Your task to perform on an android device: turn off wifi Image 0: 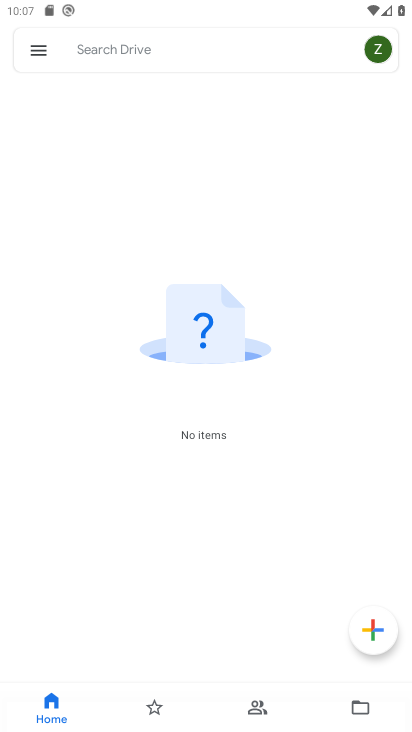
Step 0: press home button
Your task to perform on an android device: turn off wifi Image 1: 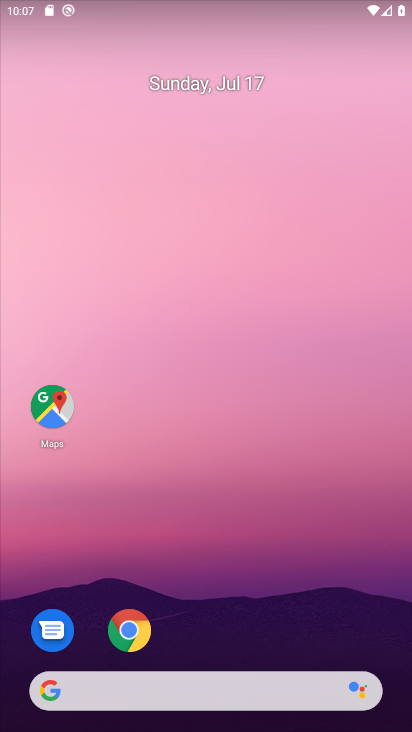
Step 1: drag from (187, 658) to (223, 5)
Your task to perform on an android device: turn off wifi Image 2: 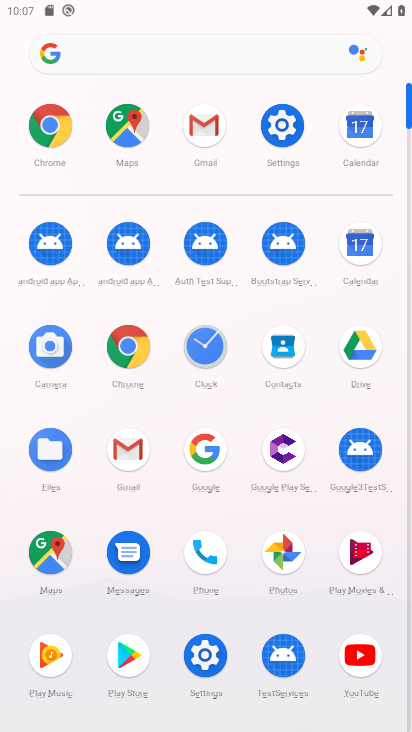
Step 2: click (280, 122)
Your task to perform on an android device: turn off wifi Image 3: 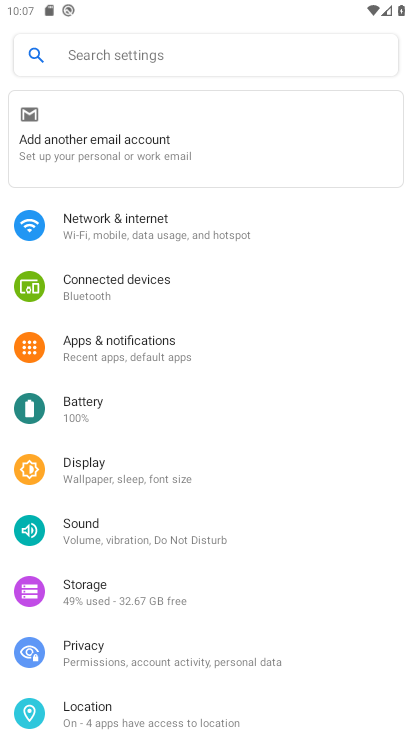
Step 3: click (127, 228)
Your task to perform on an android device: turn off wifi Image 4: 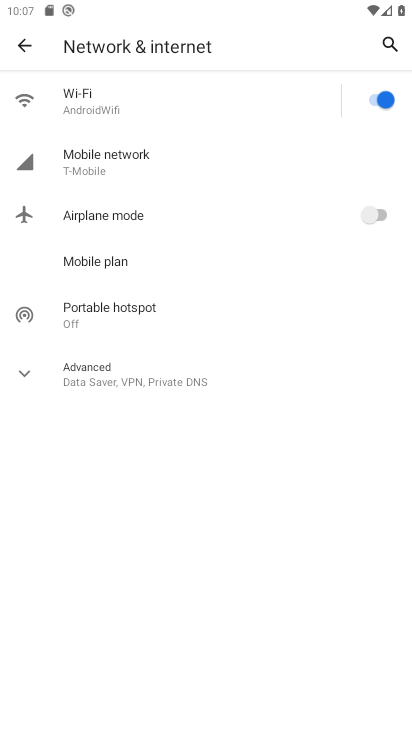
Step 4: click (349, 101)
Your task to perform on an android device: turn off wifi Image 5: 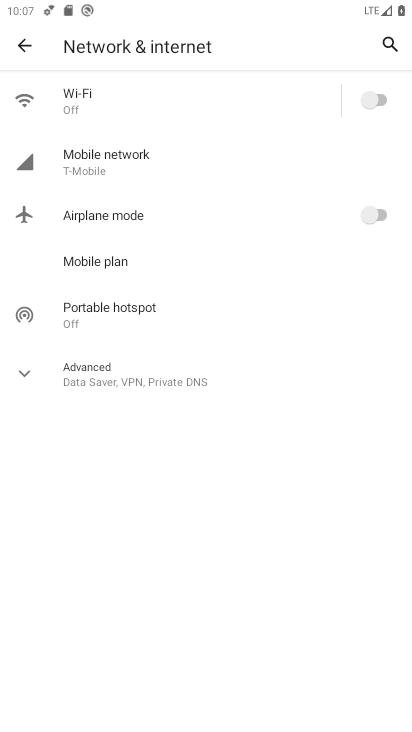
Step 5: task complete